Your task to perform on an android device: clear all cookies in the chrome app Image 0: 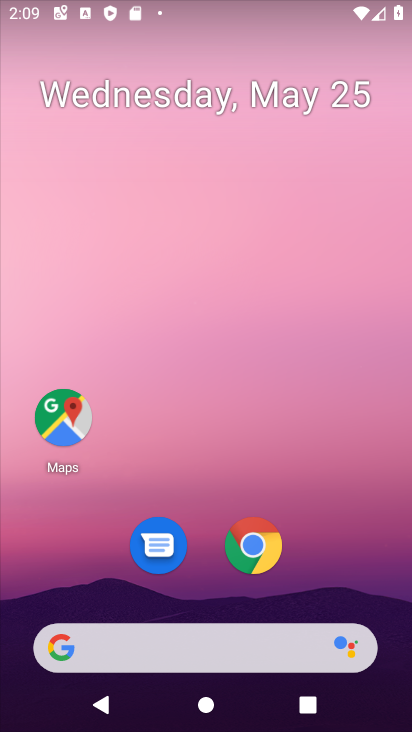
Step 0: click (362, 529)
Your task to perform on an android device: clear all cookies in the chrome app Image 1: 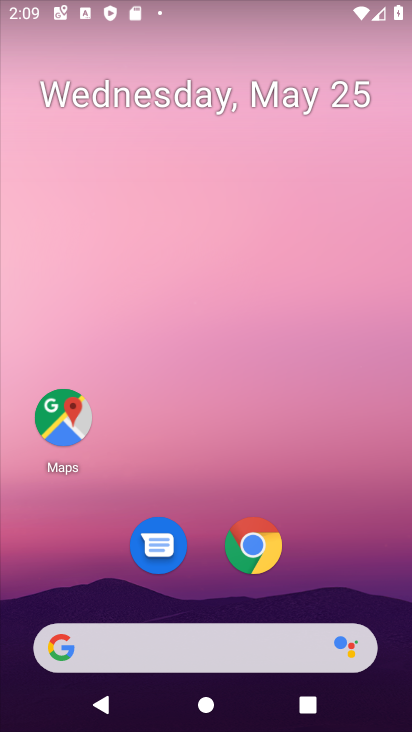
Step 1: click (269, 543)
Your task to perform on an android device: clear all cookies in the chrome app Image 2: 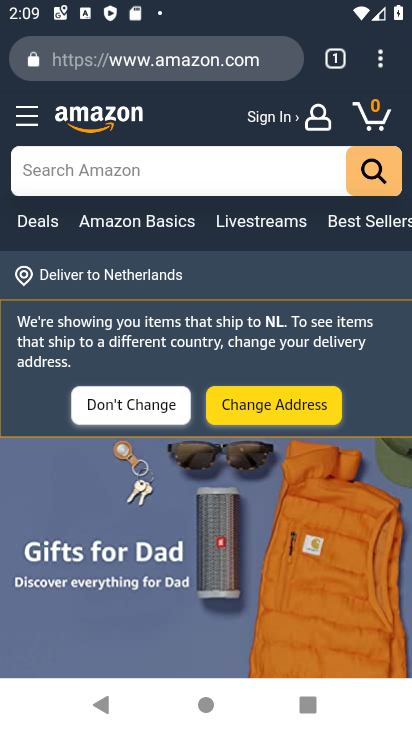
Step 2: click (393, 50)
Your task to perform on an android device: clear all cookies in the chrome app Image 3: 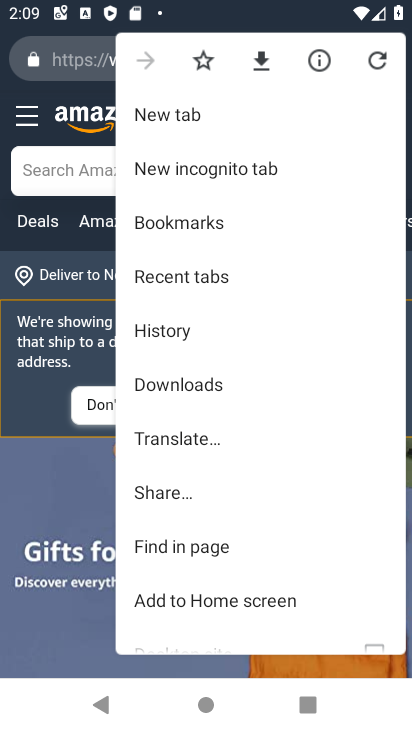
Step 3: drag from (277, 505) to (299, 275)
Your task to perform on an android device: clear all cookies in the chrome app Image 4: 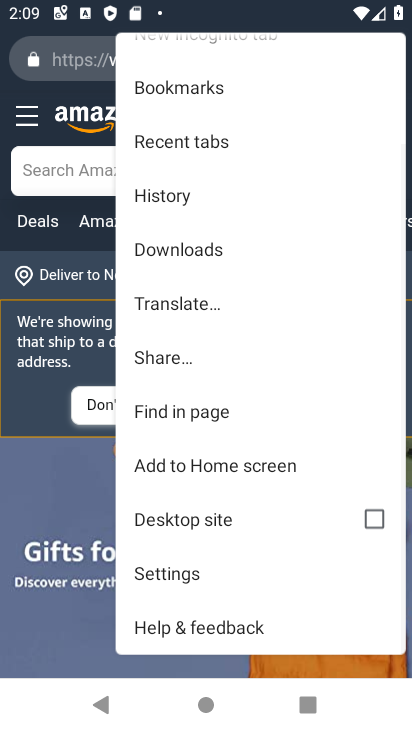
Step 4: click (232, 567)
Your task to perform on an android device: clear all cookies in the chrome app Image 5: 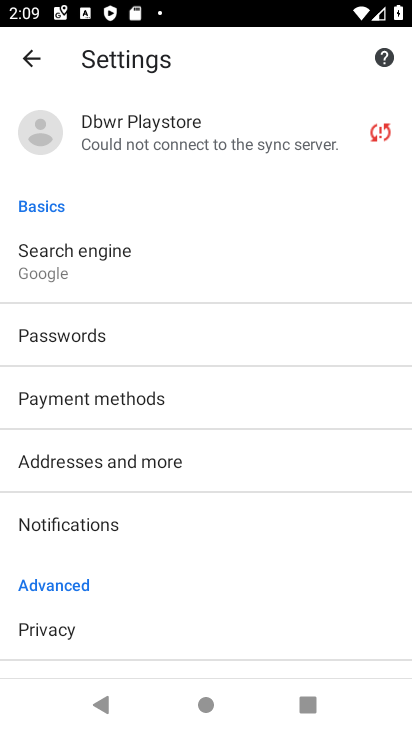
Step 5: drag from (151, 553) to (144, 234)
Your task to perform on an android device: clear all cookies in the chrome app Image 6: 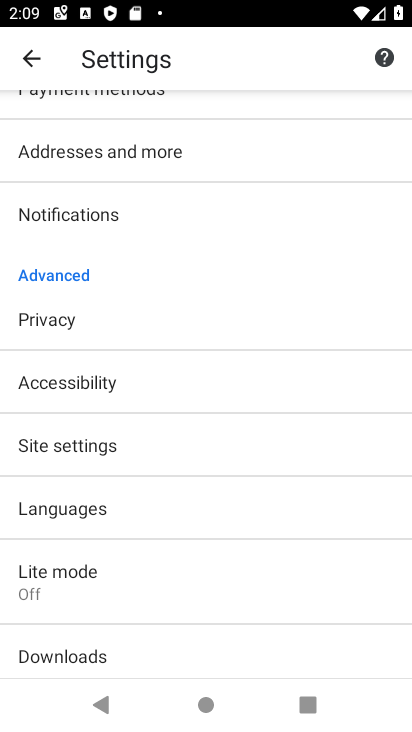
Step 6: click (141, 452)
Your task to perform on an android device: clear all cookies in the chrome app Image 7: 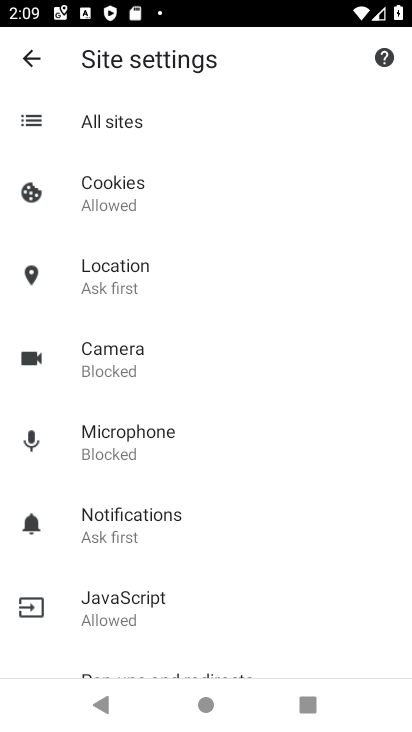
Step 7: click (190, 605)
Your task to perform on an android device: clear all cookies in the chrome app Image 8: 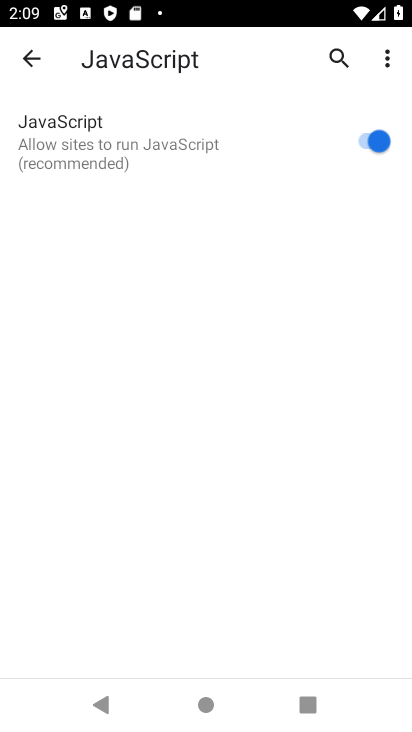
Step 8: task complete